Your task to perform on an android device: Go to ESPN.com Image 0: 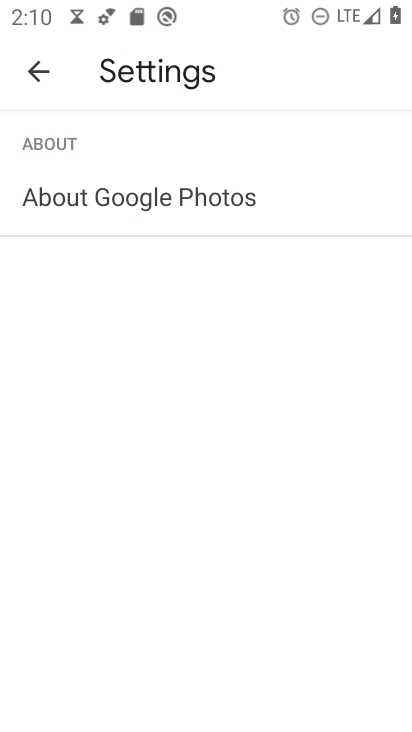
Step 0: press home button
Your task to perform on an android device: Go to ESPN.com Image 1: 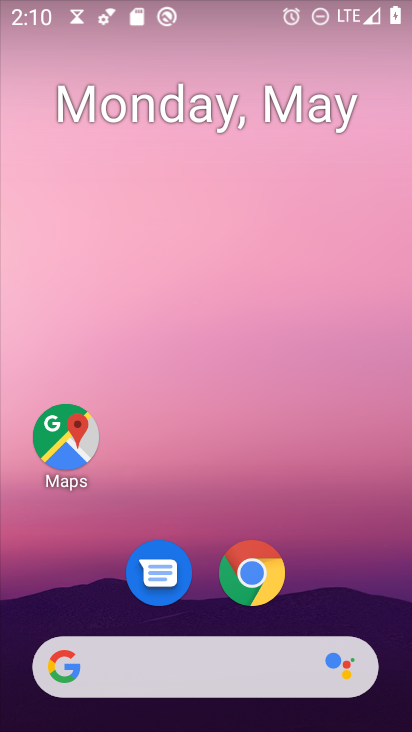
Step 1: drag from (262, 700) to (404, 415)
Your task to perform on an android device: Go to ESPN.com Image 2: 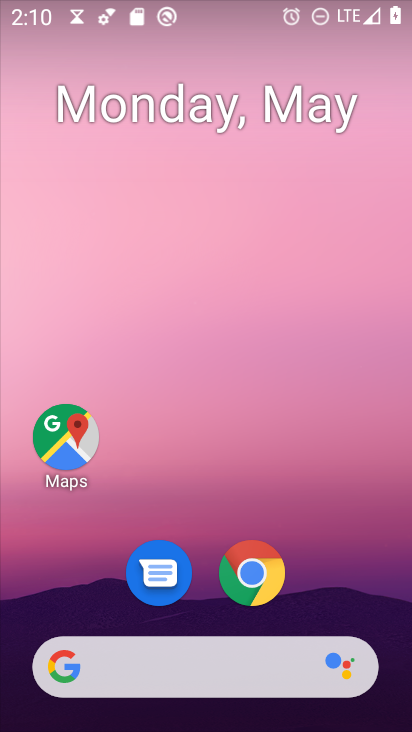
Step 2: click (237, 390)
Your task to perform on an android device: Go to ESPN.com Image 3: 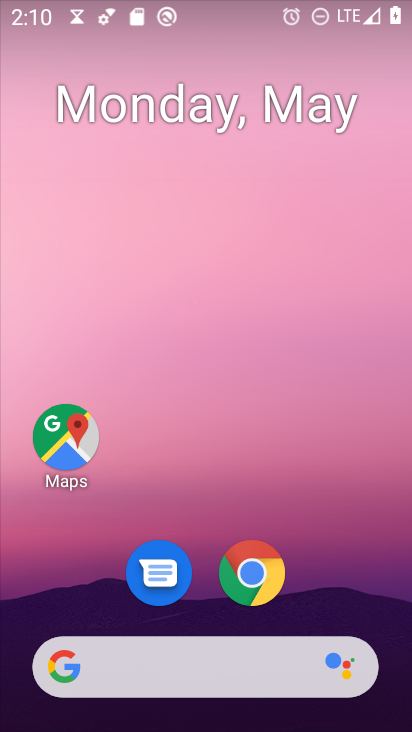
Step 3: drag from (220, 653) to (297, 25)
Your task to perform on an android device: Go to ESPN.com Image 4: 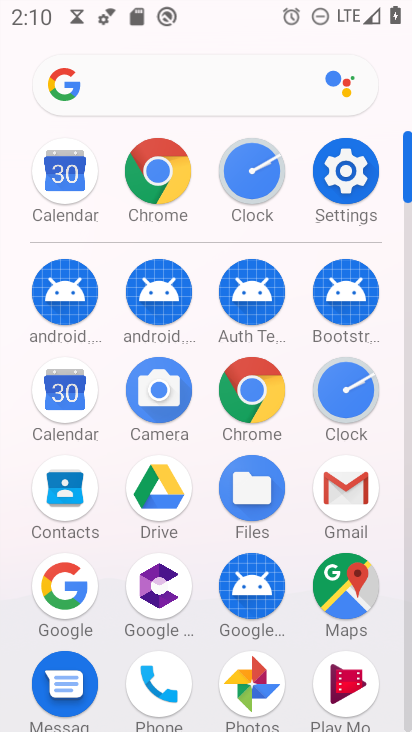
Step 4: click (260, 373)
Your task to perform on an android device: Go to ESPN.com Image 5: 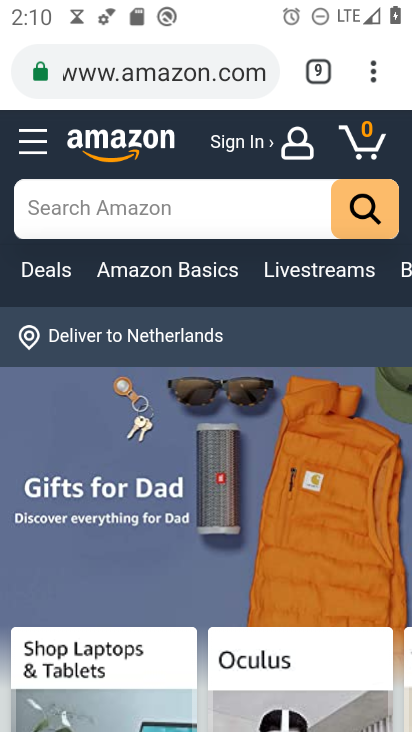
Step 5: click (199, 60)
Your task to perform on an android device: Go to ESPN.com Image 6: 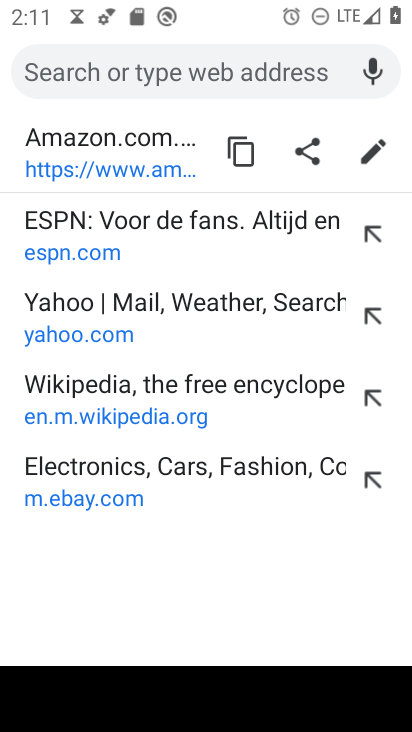
Step 6: click (155, 238)
Your task to perform on an android device: Go to ESPN.com Image 7: 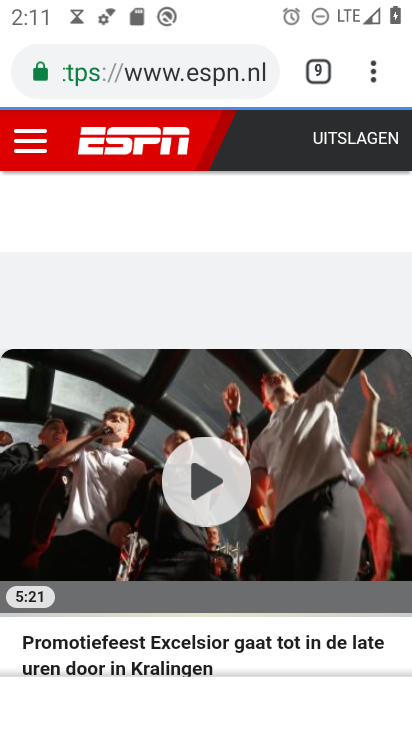
Step 7: task complete